Your task to perform on an android device: When is my next appointment? Image 0: 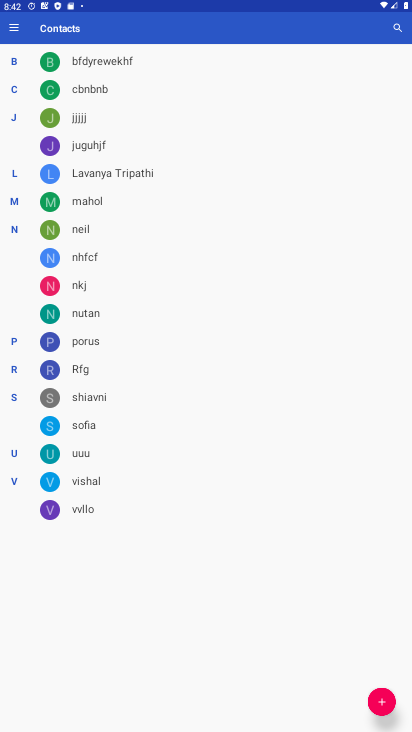
Step 0: press home button
Your task to perform on an android device: When is my next appointment? Image 1: 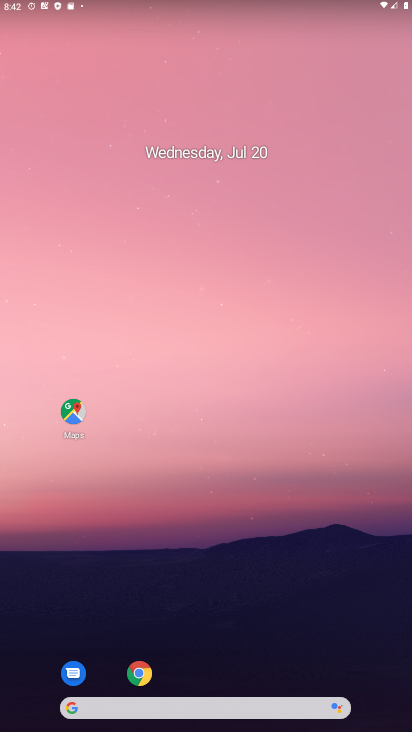
Step 1: drag from (395, 663) to (214, 54)
Your task to perform on an android device: When is my next appointment? Image 2: 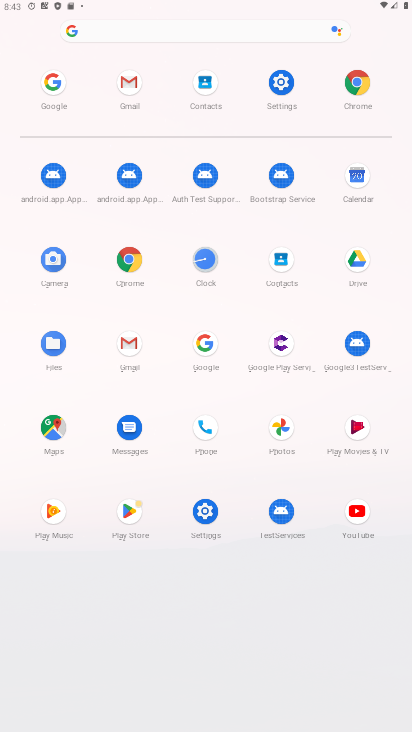
Step 2: click (360, 187)
Your task to perform on an android device: When is my next appointment? Image 3: 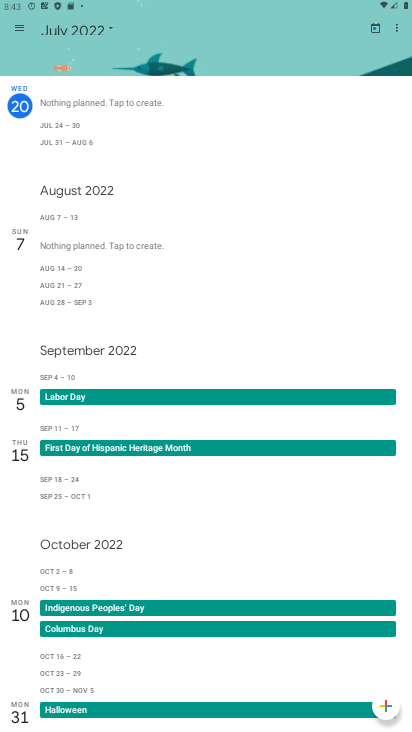
Step 3: task complete